Your task to perform on an android device: What's the weather today? Image 0: 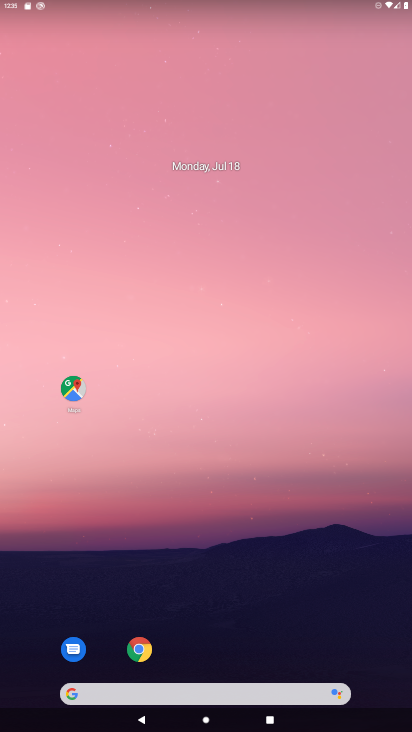
Step 0: click (191, 703)
Your task to perform on an android device: What's the weather today? Image 1: 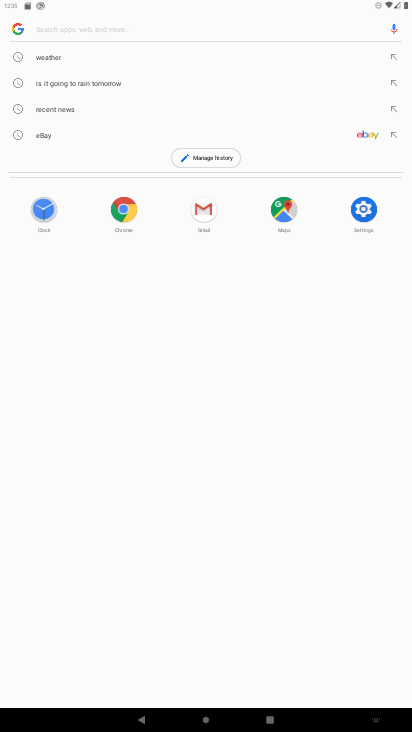
Step 1: click (92, 60)
Your task to perform on an android device: What's the weather today? Image 2: 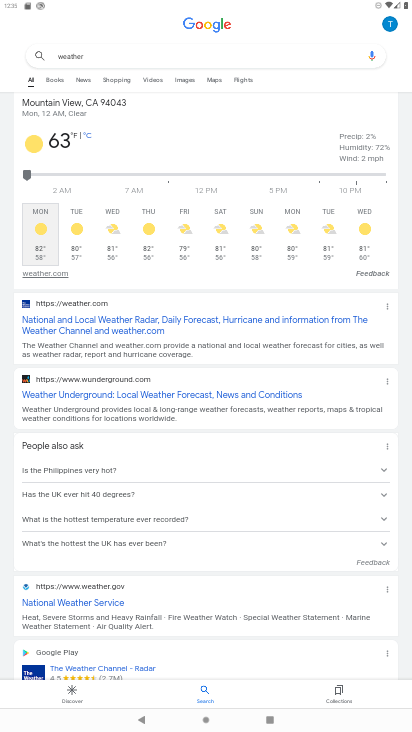
Step 2: task complete